Your task to perform on an android device: set the stopwatch Image 0: 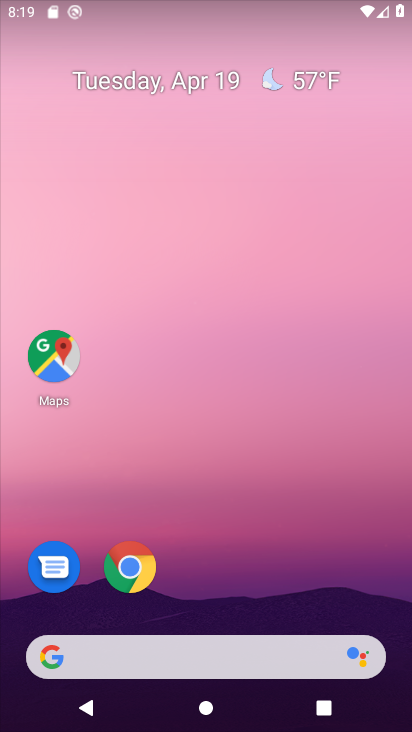
Step 0: drag from (261, 577) to (283, 99)
Your task to perform on an android device: set the stopwatch Image 1: 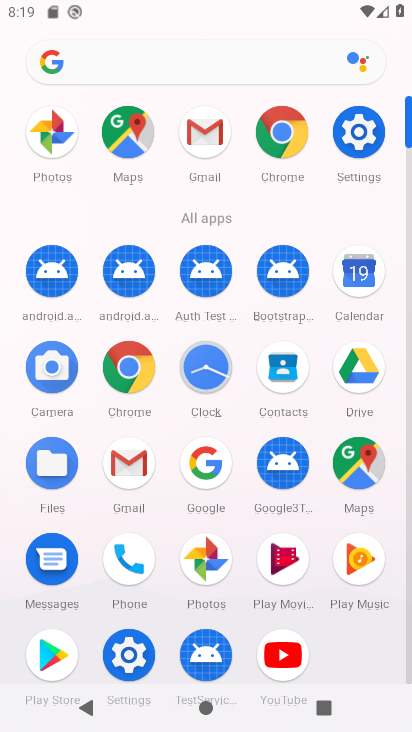
Step 1: click (352, 142)
Your task to perform on an android device: set the stopwatch Image 2: 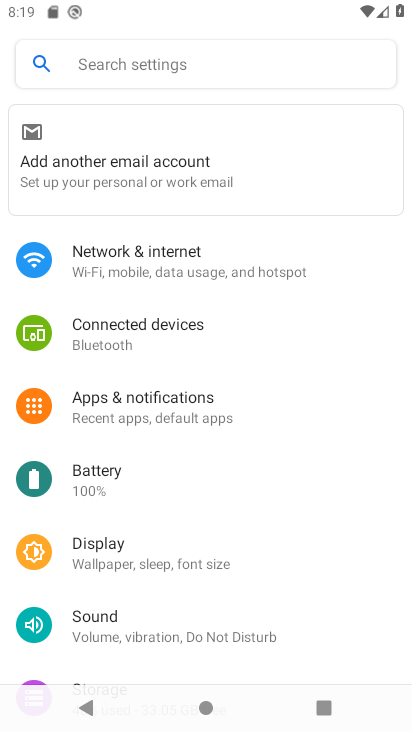
Step 2: click (198, 700)
Your task to perform on an android device: set the stopwatch Image 3: 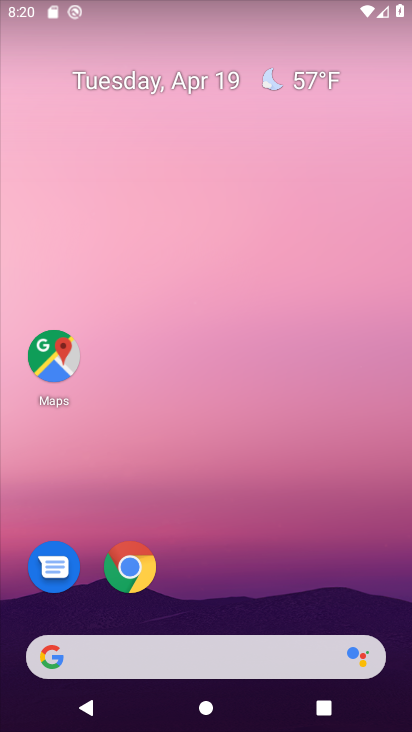
Step 3: drag from (254, 710) to (343, 19)
Your task to perform on an android device: set the stopwatch Image 4: 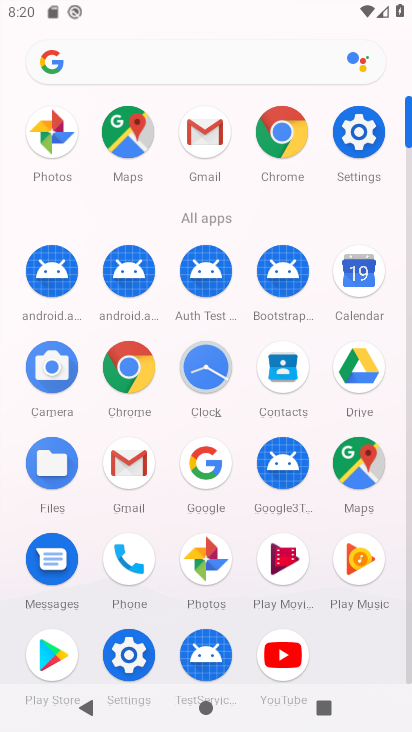
Step 4: click (213, 378)
Your task to perform on an android device: set the stopwatch Image 5: 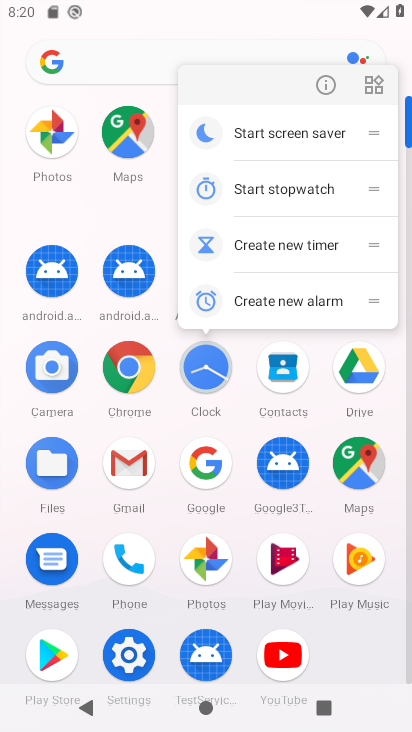
Step 5: click (212, 378)
Your task to perform on an android device: set the stopwatch Image 6: 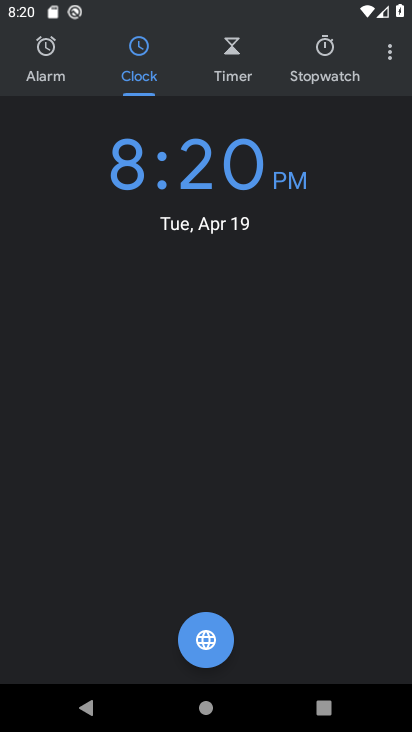
Step 6: click (396, 61)
Your task to perform on an android device: set the stopwatch Image 7: 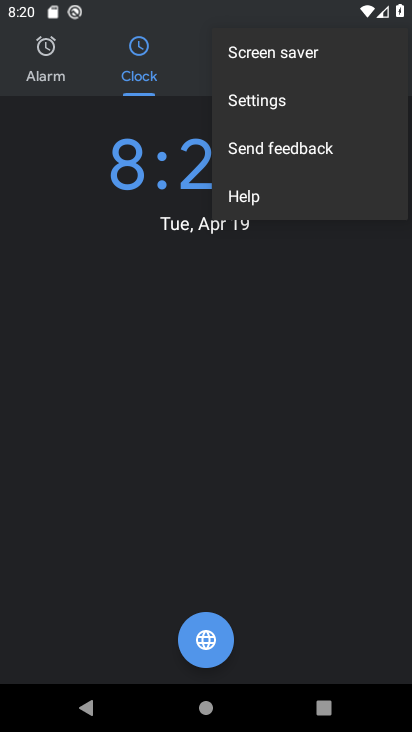
Step 7: click (198, 361)
Your task to perform on an android device: set the stopwatch Image 8: 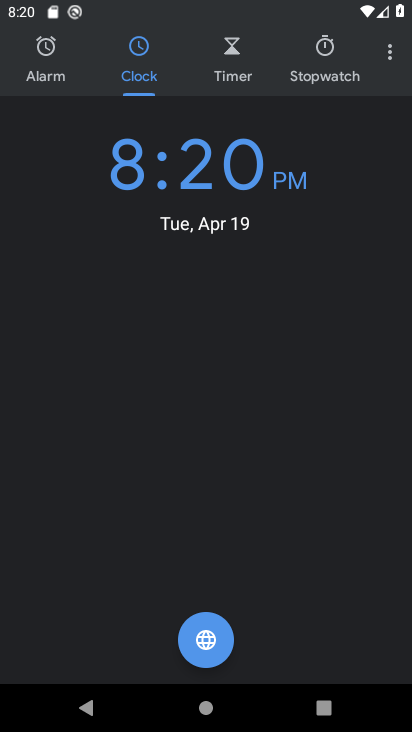
Step 8: click (322, 65)
Your task to perform on an android device: set the stopwatch Image 9: 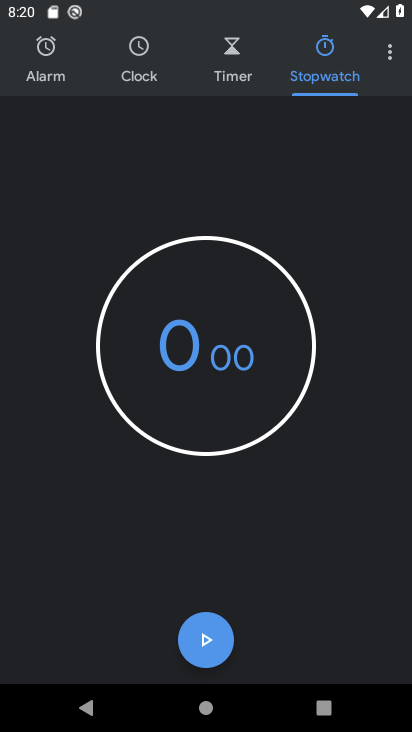
Step 9: task complete